Your task to perform on an android device: turn notification dots on Image 0: 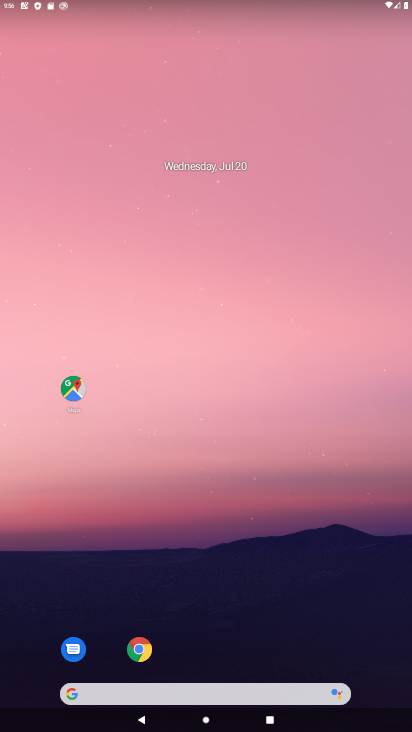
Step 0: drag from (179, 663) to (256, 229)
Your task to perform on an android device: turn notification dots on Image 1: 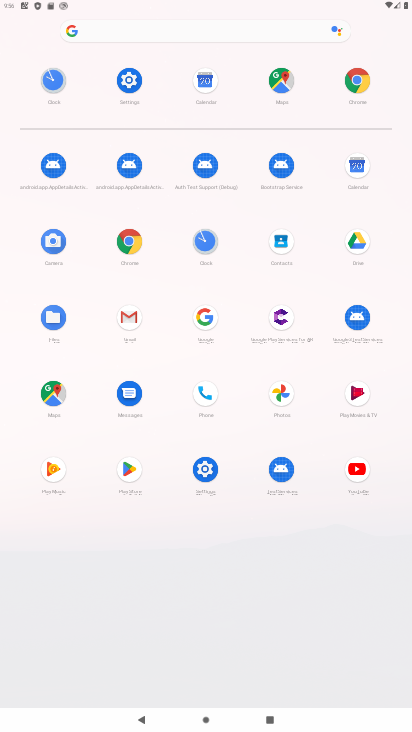
Step 1: click (143, 94)
Your task to perform on an android device: turn notification dots on Image 2: 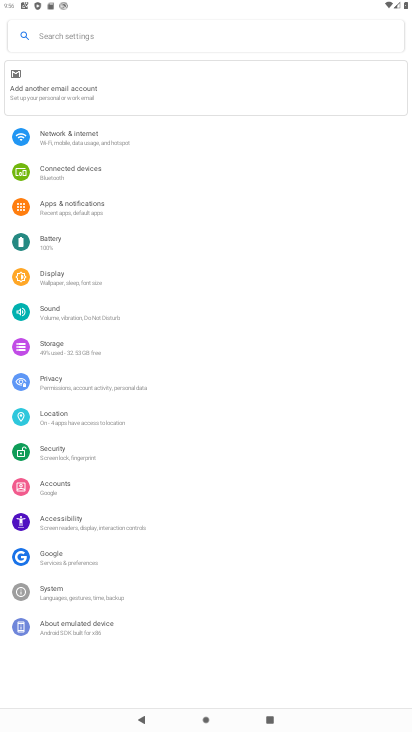
Step 2: click (141, 201)
Your task to perform on an android device: turn notification dots on Image 3: 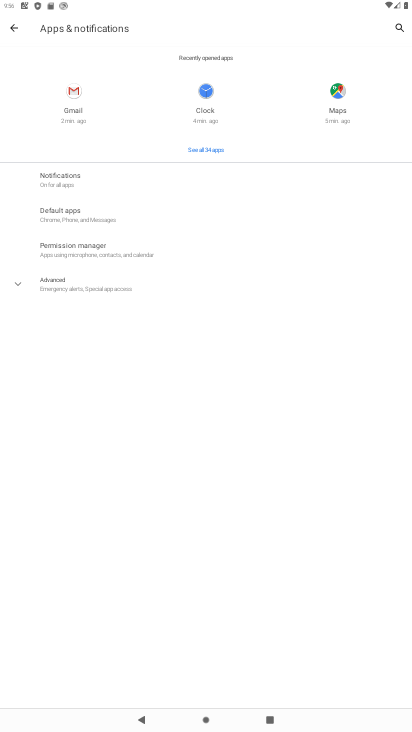
Step 3: click (140, 279)
Your task to perform on an android device: turn notification dots on Image 4: 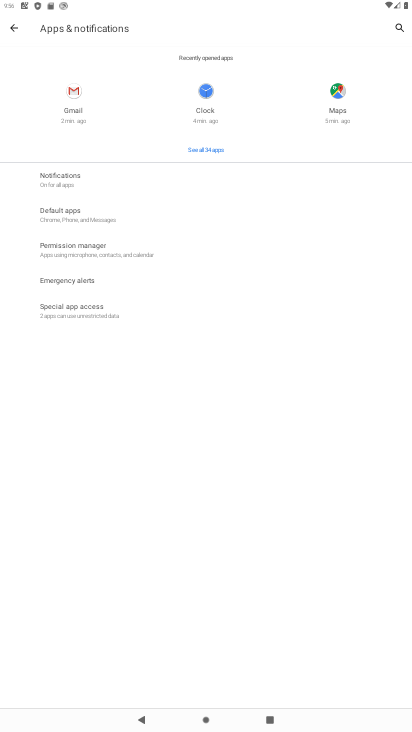
Step 4: click (117, 171)
Your task to perform on an android device: turn notification dots on Image 5: 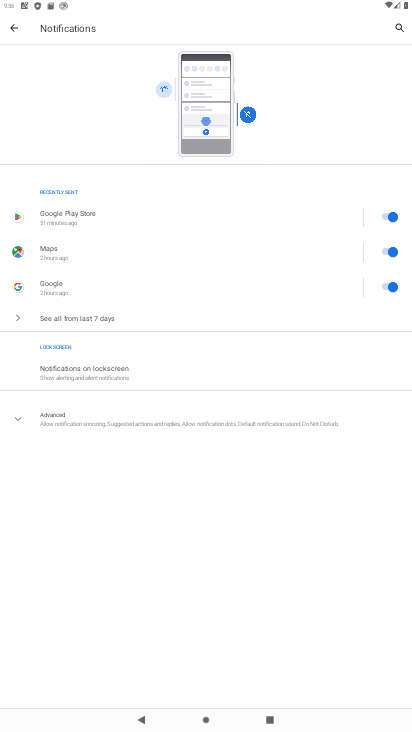
Step 5: click (183, 367)
Your task to perform on an android device: turn notification dots on Image 6: 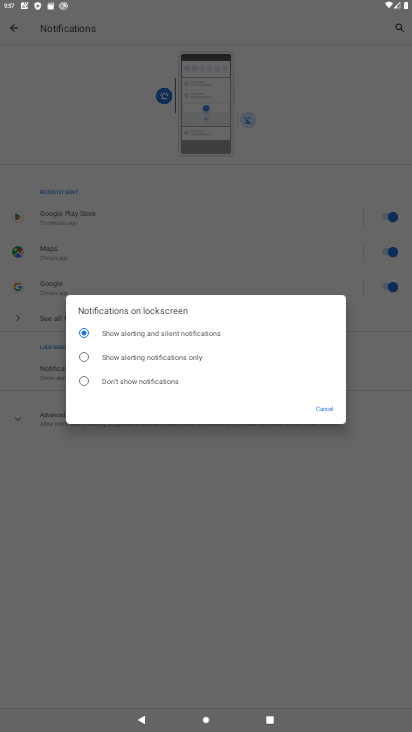
Step 6: task complete